Your task to perform on an android device: check data usage Image 0: 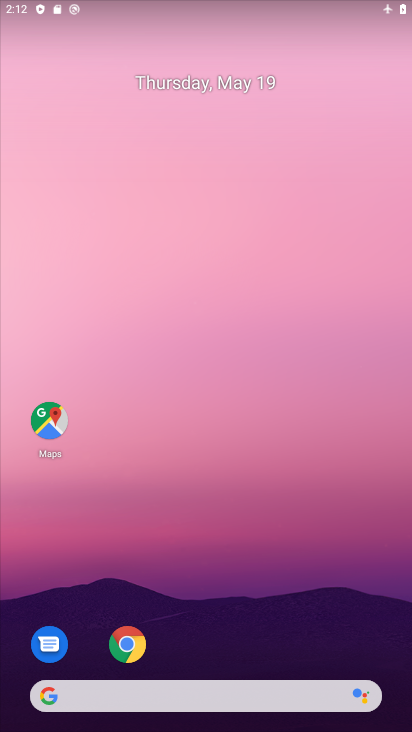
Step 0: drag from (302, 614) to (281, 248)
Your task to perform on an android device: check data usage Image 1: 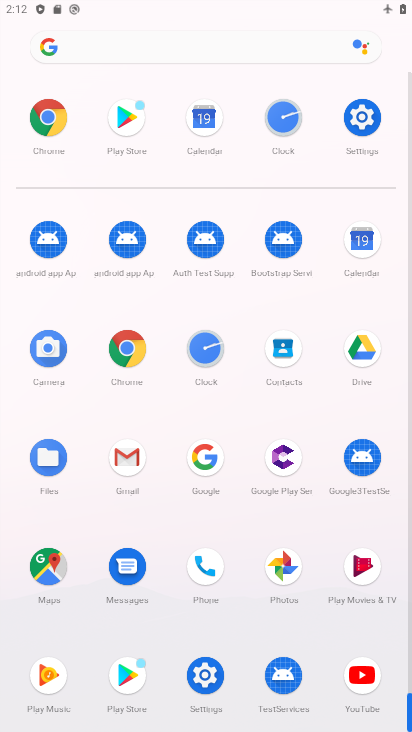
Step 1: click (366, 108)
Your task to perform on an android device: check data usage Image 2: 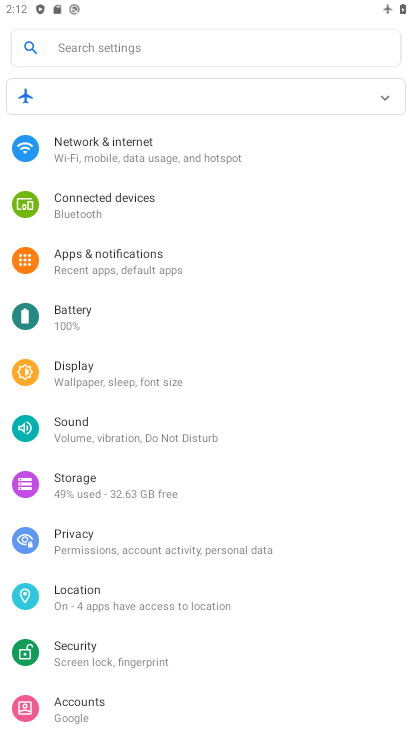
Step 2: click (184, 136)
Your task to perform on an android device: check data usage Image 3: 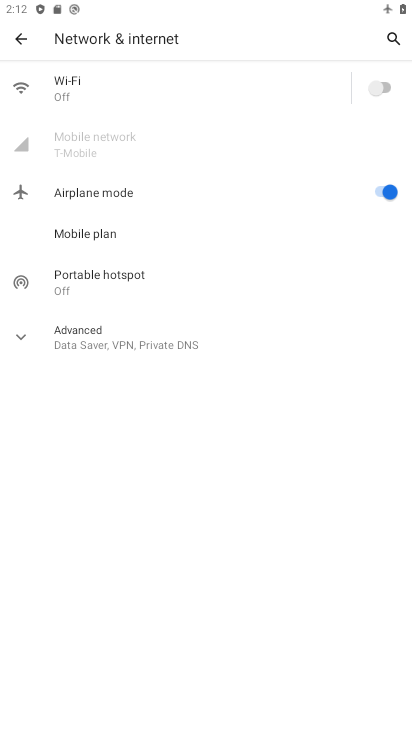
Step 3: task complete